Your task to perform on an android device: change text size in settings app Image 0: 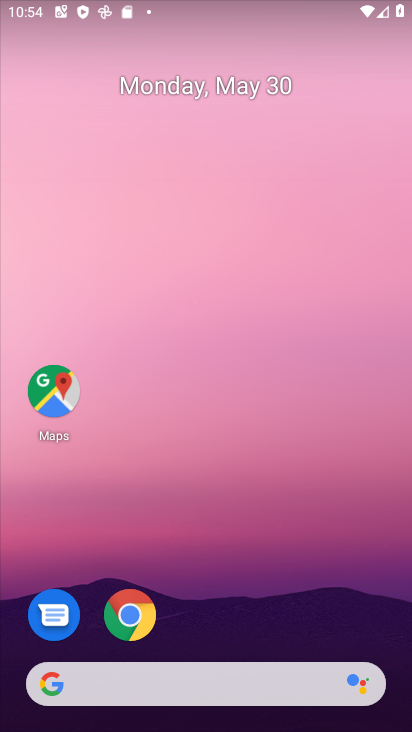
Step 0: drag from (281, 587) to (204, 39)
Your task to perform on an android device: change text size in settings app Image 1: 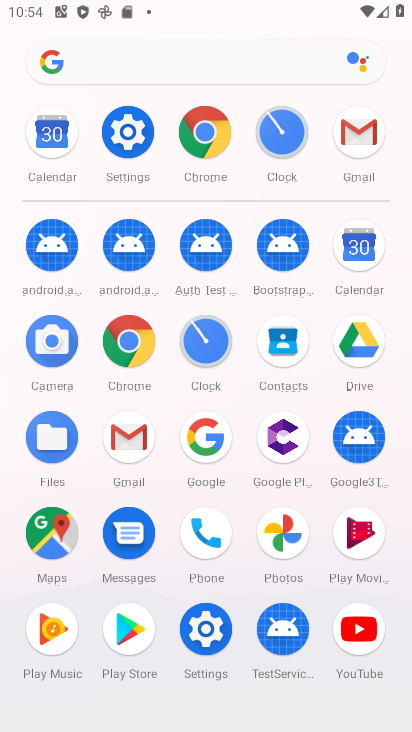
Step 1: click (130, 143)
Your task to perform on an android device: change text size in settings app Image 2: 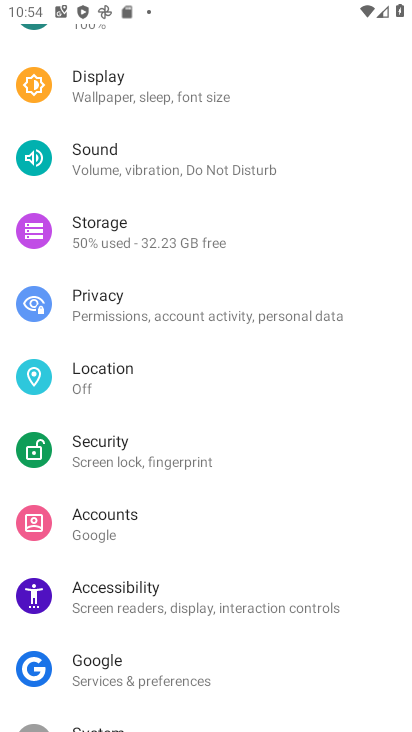
Step 2: click (174, 110)
Your task to perform on an android device: change text size in settings app Image 3: 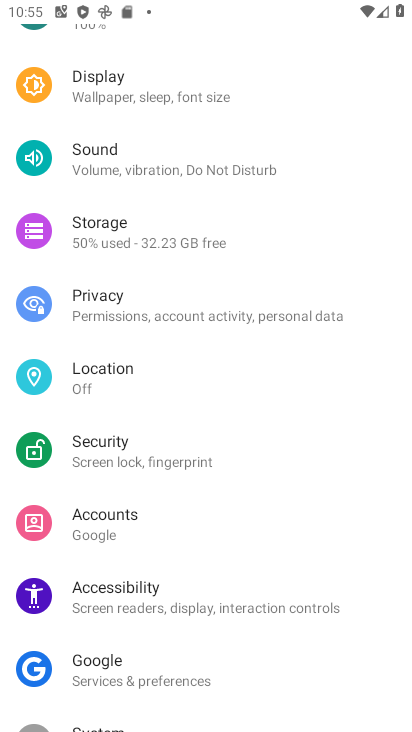
Step 3: click (140, 92)
Your task to perform on an android device: change text size in settings app Image 4: 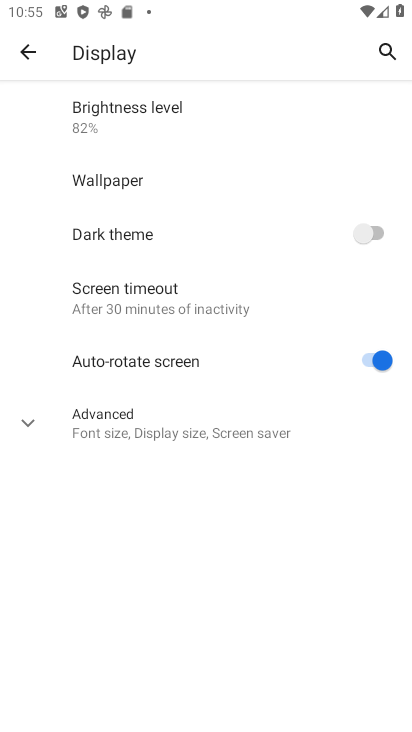
Step 4: click (171, 427)
Your task to perform on an android device: change text size in settings app Image 5: 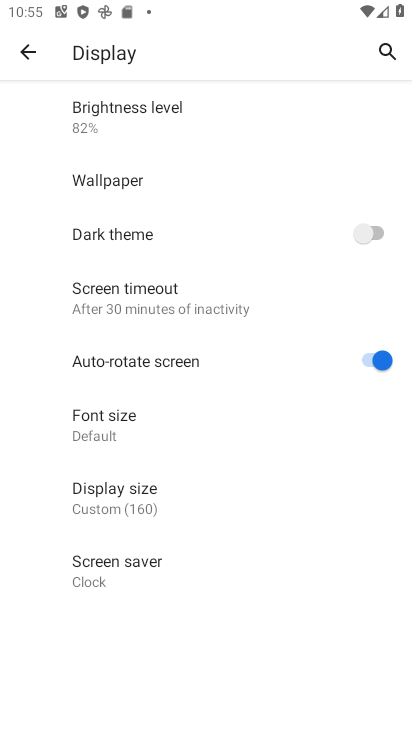
Step 5: click (151, 432)
Your task to perform on an android device: change text size in settings app Image 6: 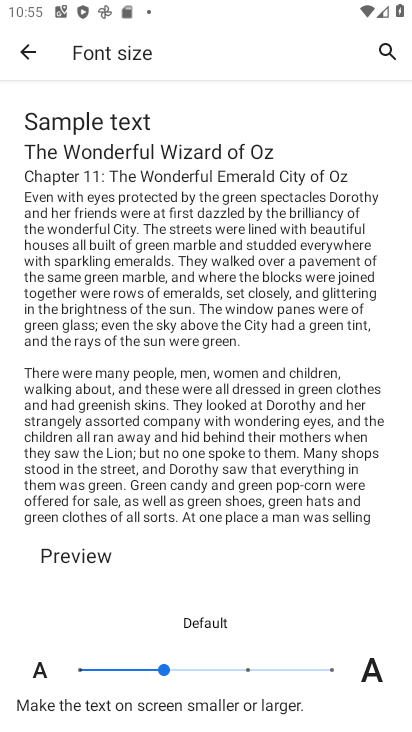
Step 6: click (252, 671)
Your task to perform on an android device: change text size in settings app Image 7: 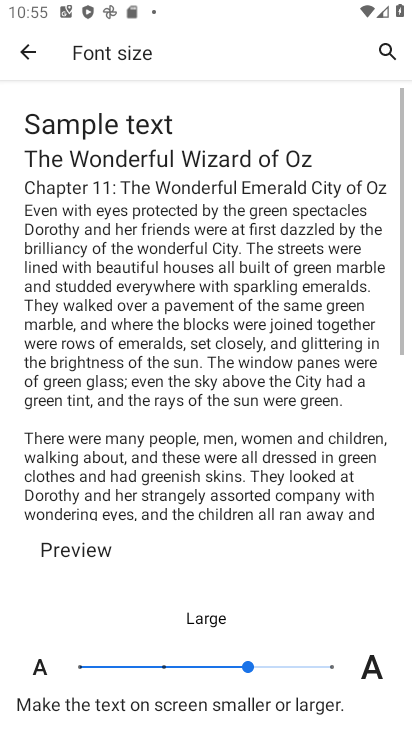
Step 7: task complete